Your task to perform on an android device: Search for lenovo thinkpad on target, select the first entry, add it to the cart, then select checkout. Image 0: 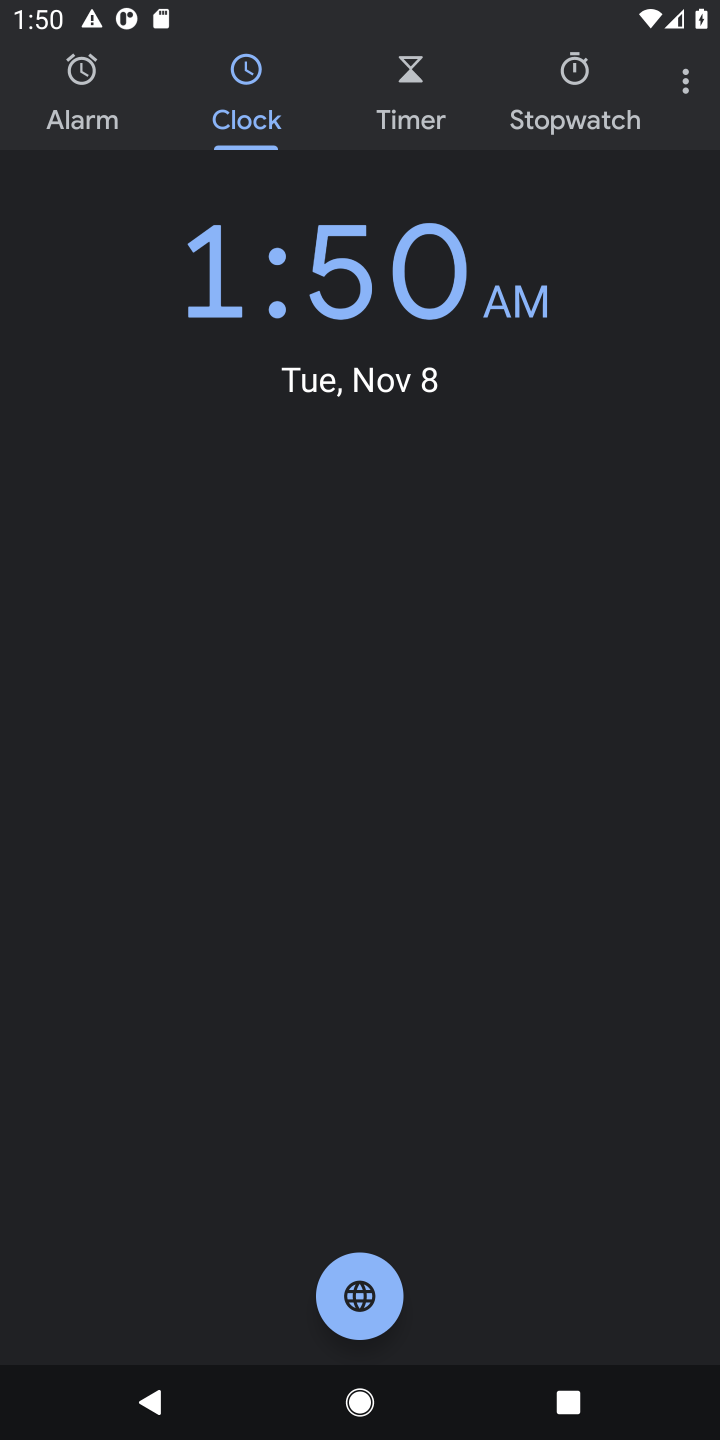
Step 0: press home button
Your task to perform on an android device: Search for lenovo thinkpad on target, select the first entry, add it to the cart, then select checkout. Image 1: 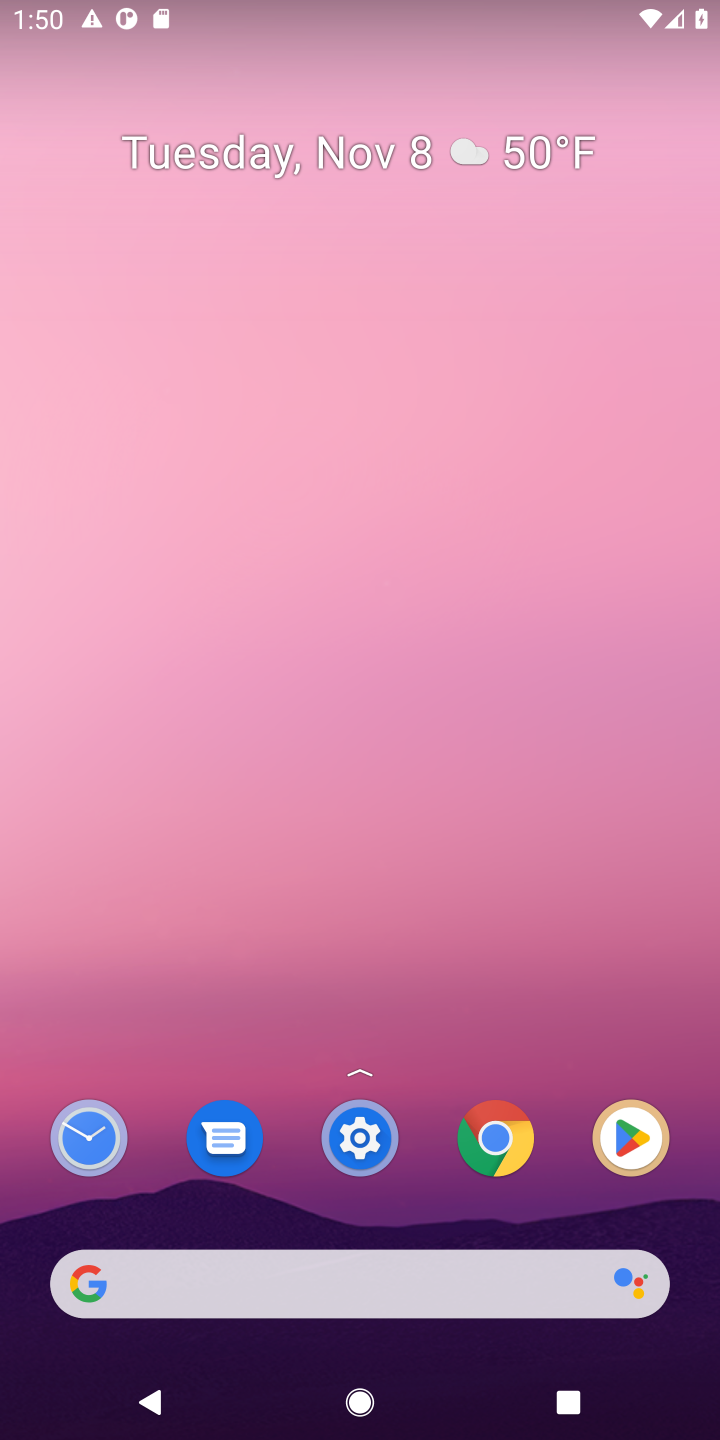
Step 1: click (298, 1297)
Your task to perform on an android device: Search for lenovo thinkpad on target, select the first entry, add it to the cart, then select checkout. Image 2: 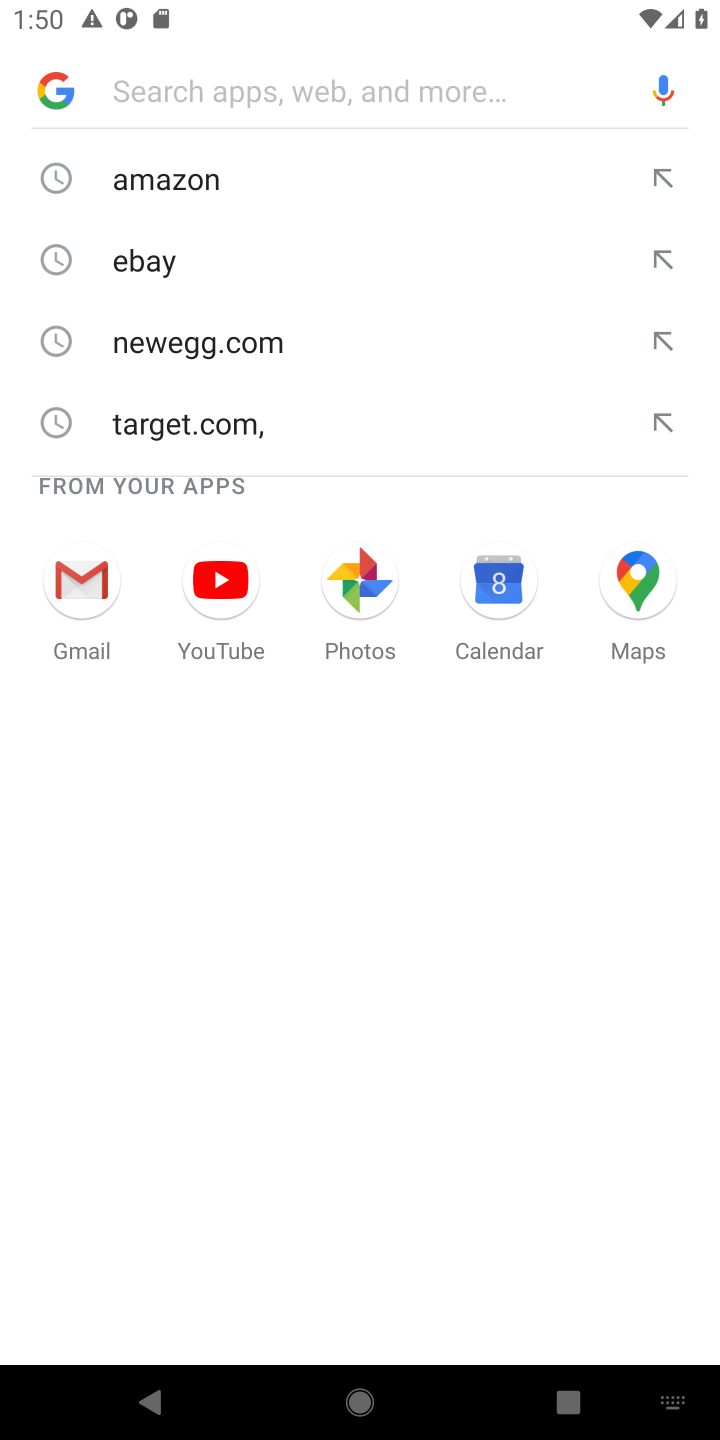
Step 2: type "targets"
Your task to perform on an android device: Search for lenovo thinkpad on target, select the first entry, add it to the cart, then select checkout. Image 3: 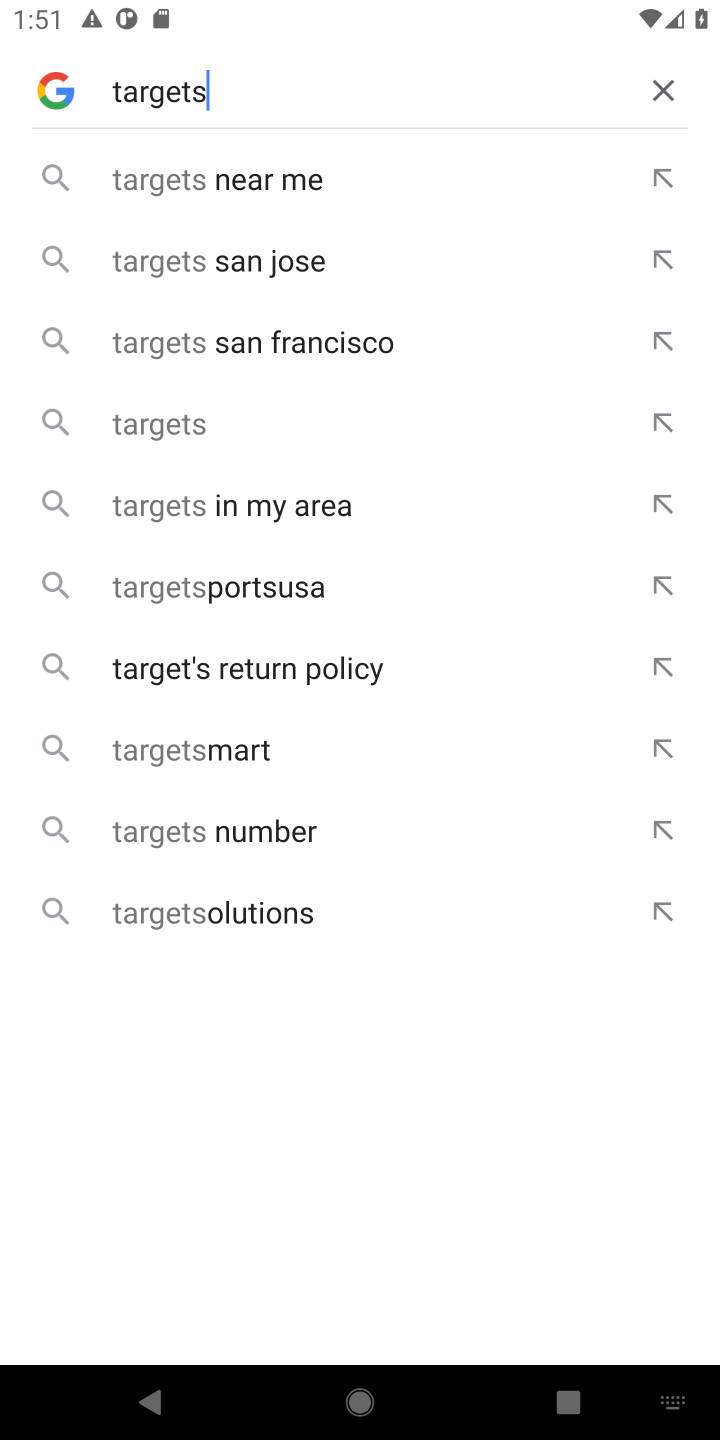
Step 3: click (164, 183)
Your task to perform on an android device: Search for lenovo thinkpad on target, select the first entry, add it to the cart, then select checkout. Image 4: 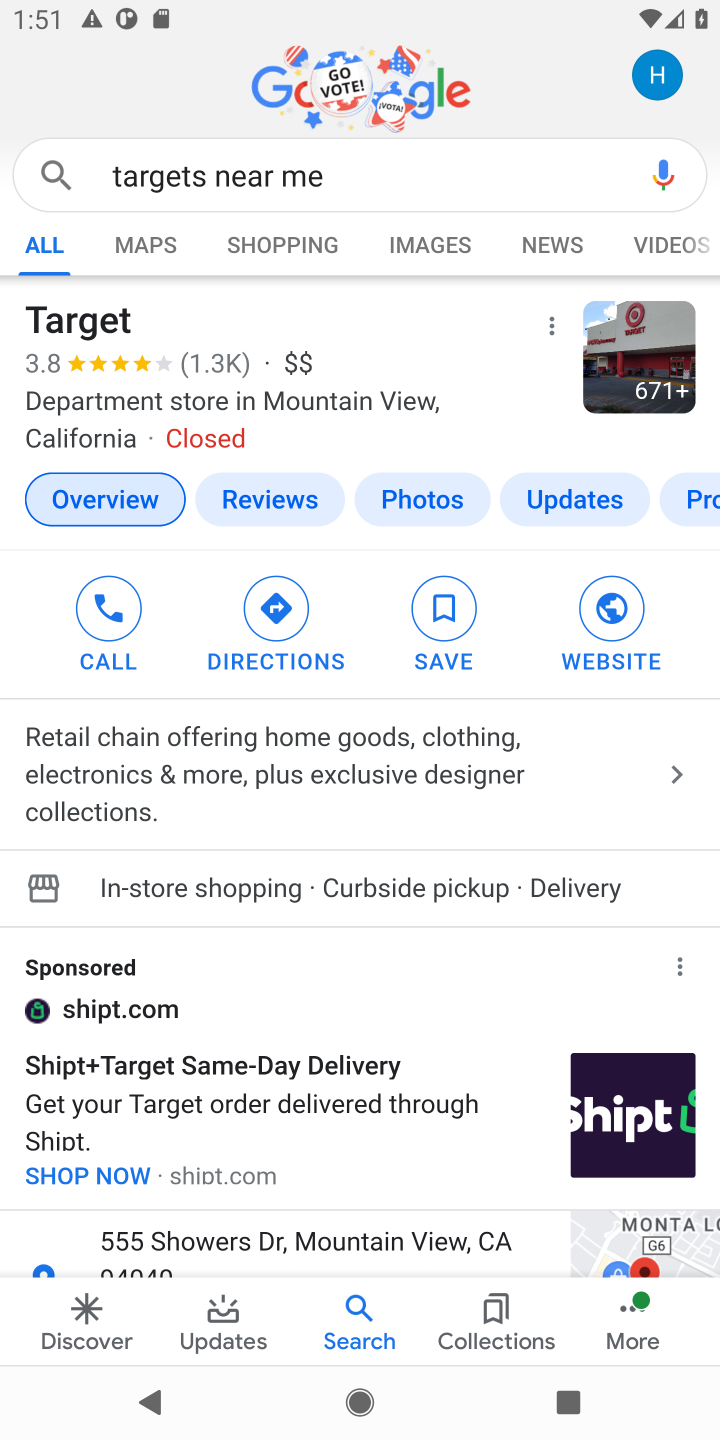
Step 4: drag from (376, 1162) to (370, 264)
Your task to perform on an android device: Search for lenovo thinkpad on target, select the first entry, add it to the cart, then select checkout. Image 5: 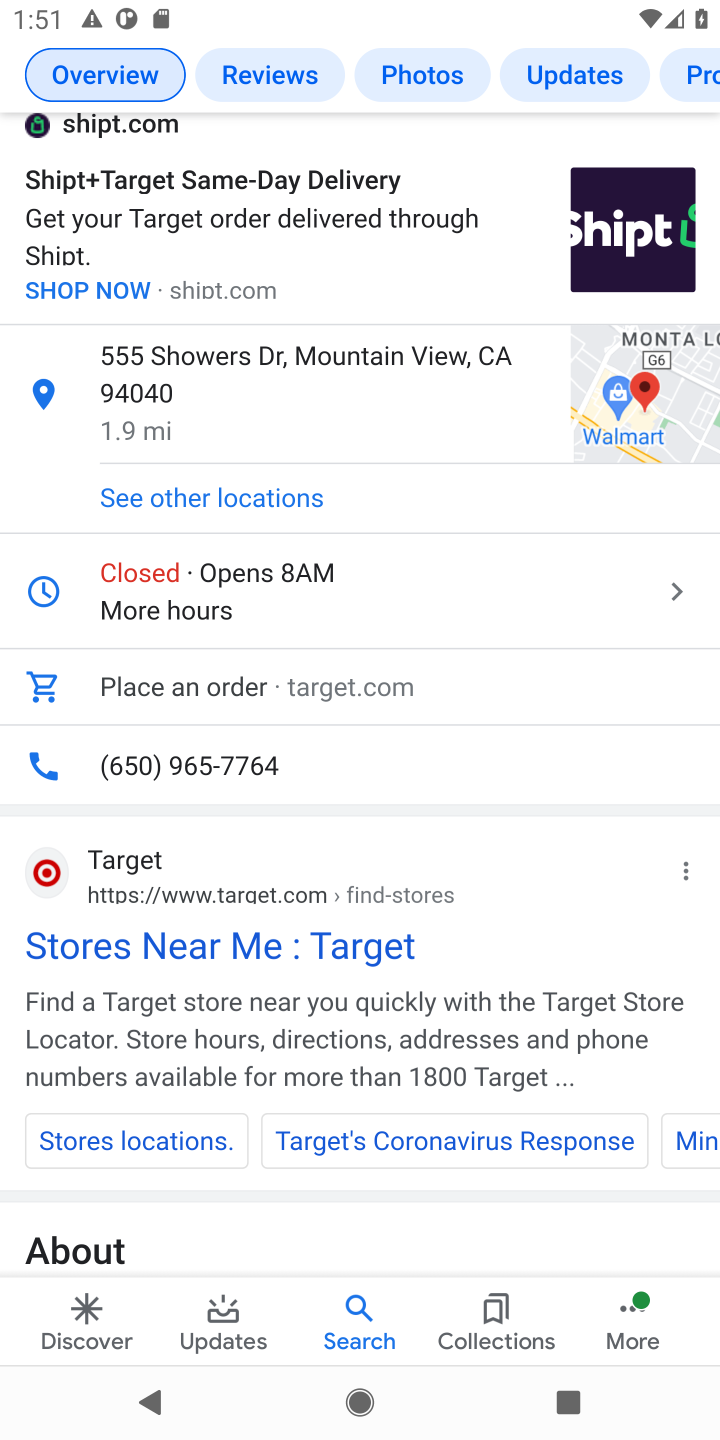
Step 5: click (302, 932)
Your task to perform on an android device: Search for lenovo thinkpad on target, select the first entry, add it to the cart, then select checkout. Image 6: 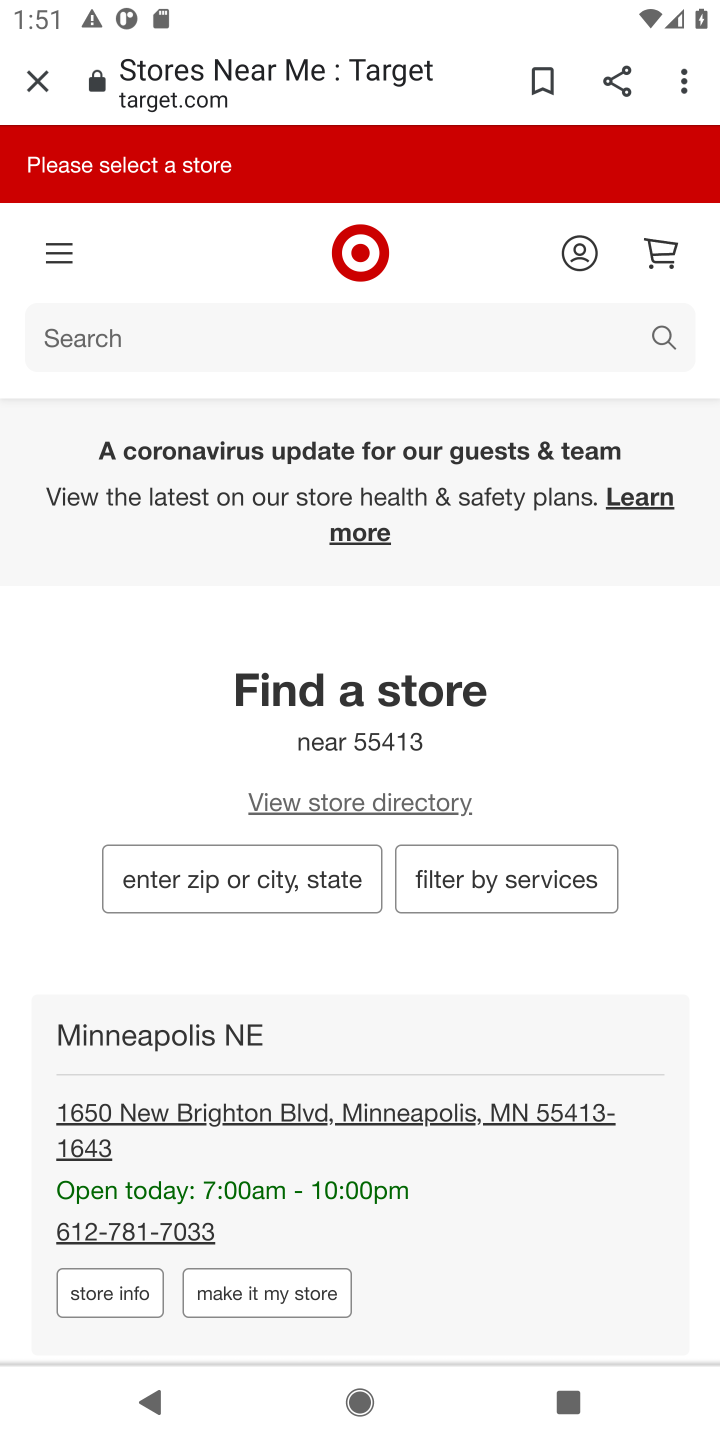
Step 6: click (332, 334)
Your task to perform on an android device: Search for lenovo thinkpad on target, select the first entry, add it to the cart, then select checkout. Image 7: 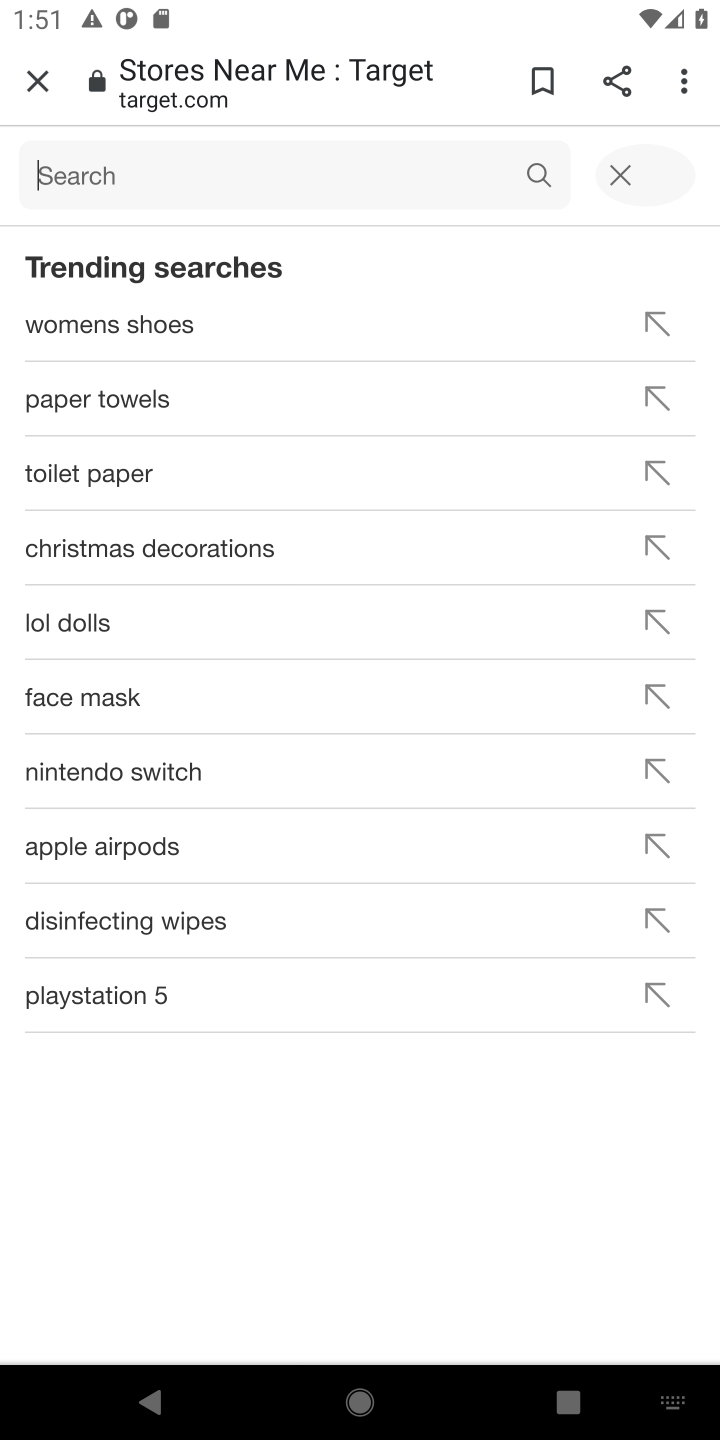
Step 7: type "lenovo traget"
Your task to perform on an android device: Search for lenovo thinkpad on target, select the first entry, add it to the cart, then select checkout. Image 8: 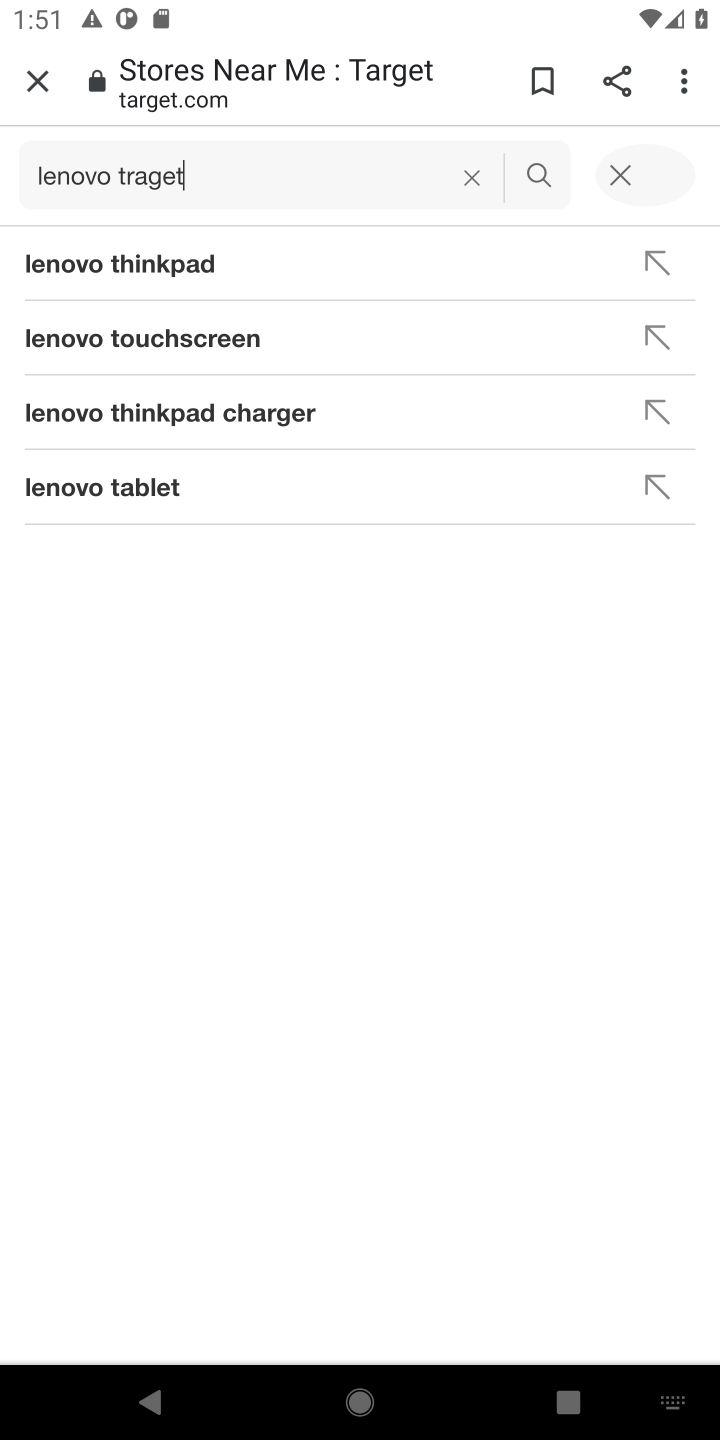
Step 8: click (289, 275)
Your task to perform on an android device: Search for lenovo thinkpad on target, select the first entry, add it to the cart, then select checkout. Image 9: 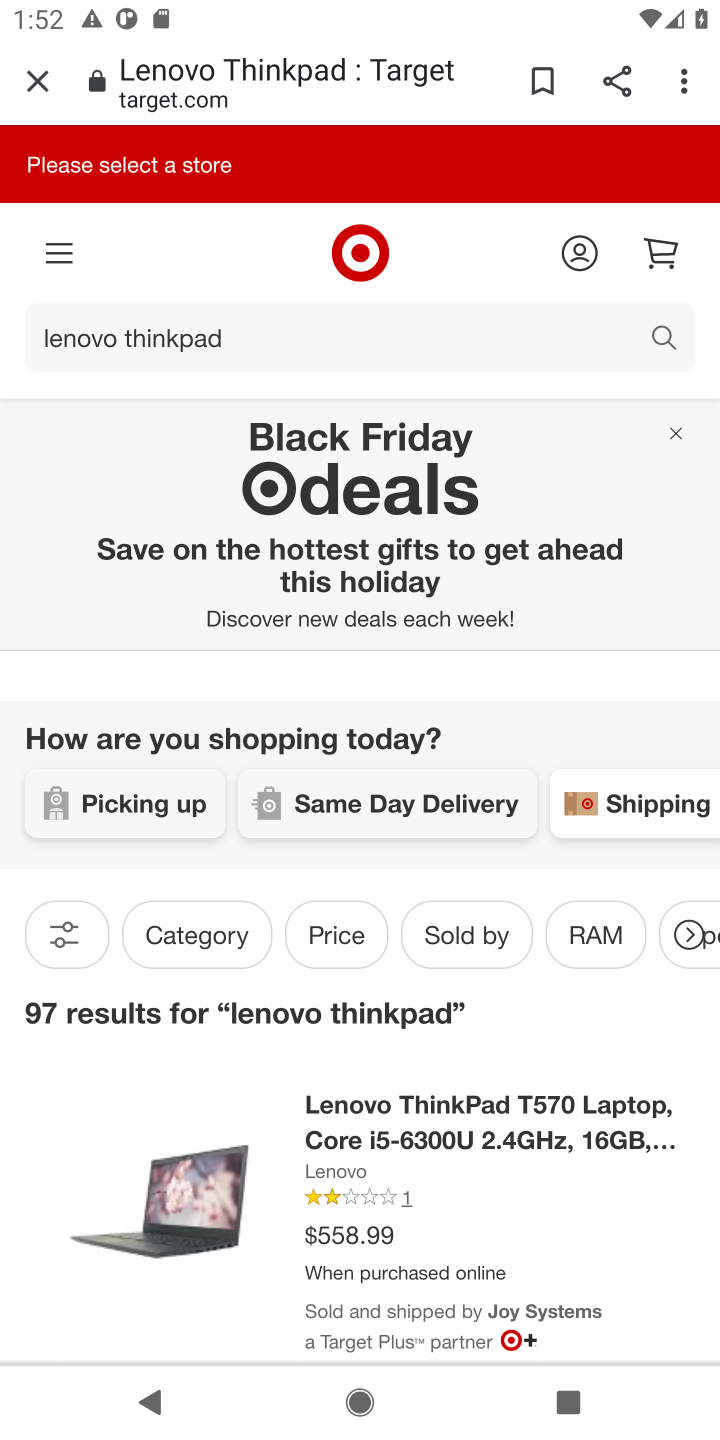
Step 9: click (417, 1104)
Your task to perform on an android device: Search for lenovo thinkpad on target, select the first entry, add it to the cart, then select checkout. Image 10: 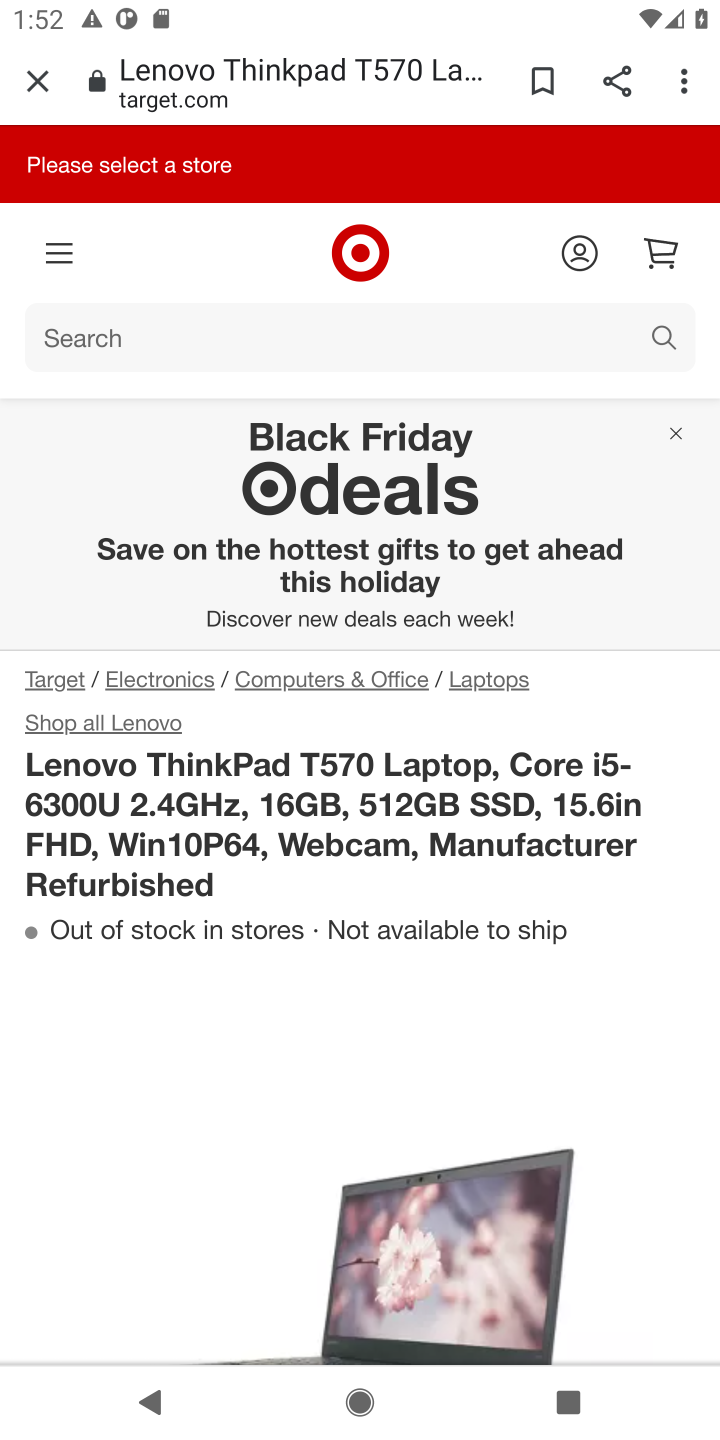
Step 10: drag from (510, 1120) to (491, 293)
Your task to perform on an android device: Search for lenovo thinkpad on target, select the first entry, add it to the cart, then select checkout. Image 11: 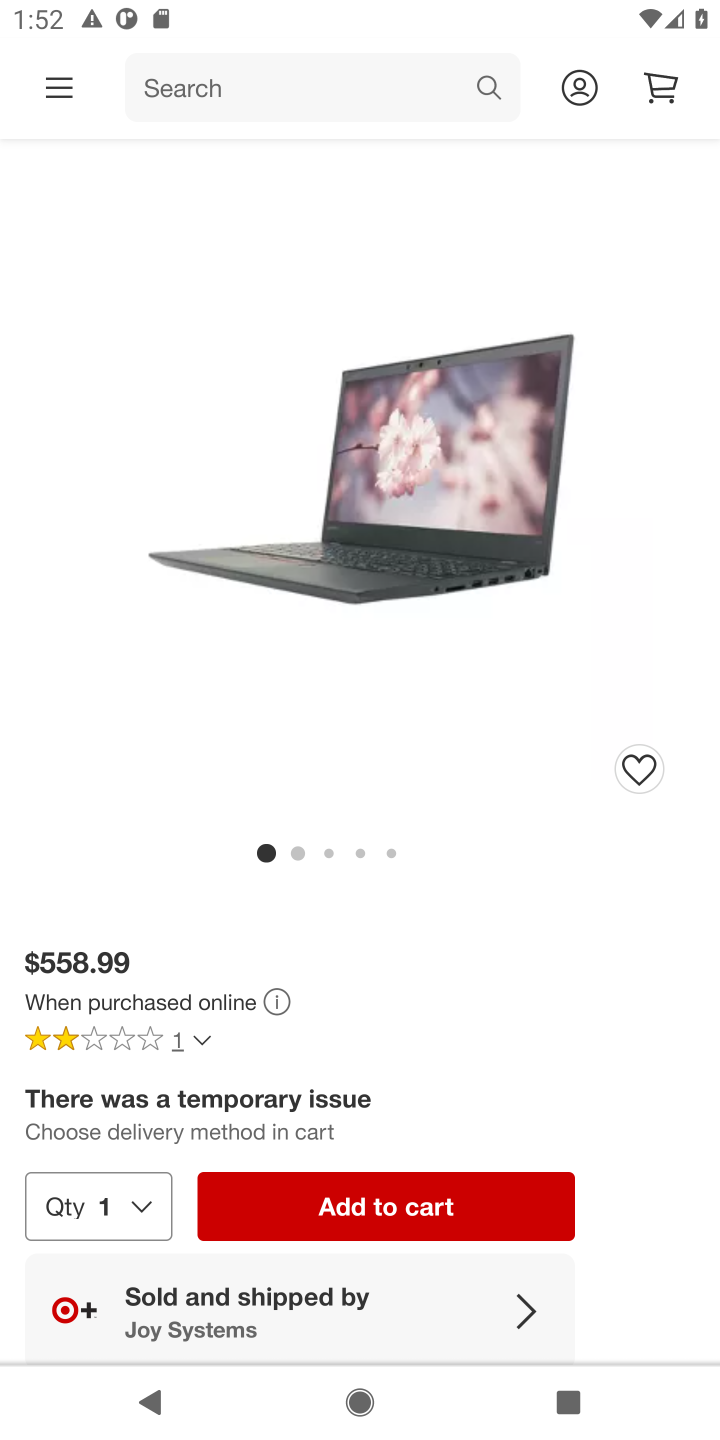
Step 11: click (380, 1199)
Your task to perform on an android device: Search for lenovo thinkpad on target, select the first entry, add it to the cart, then select checkout. Image 12: 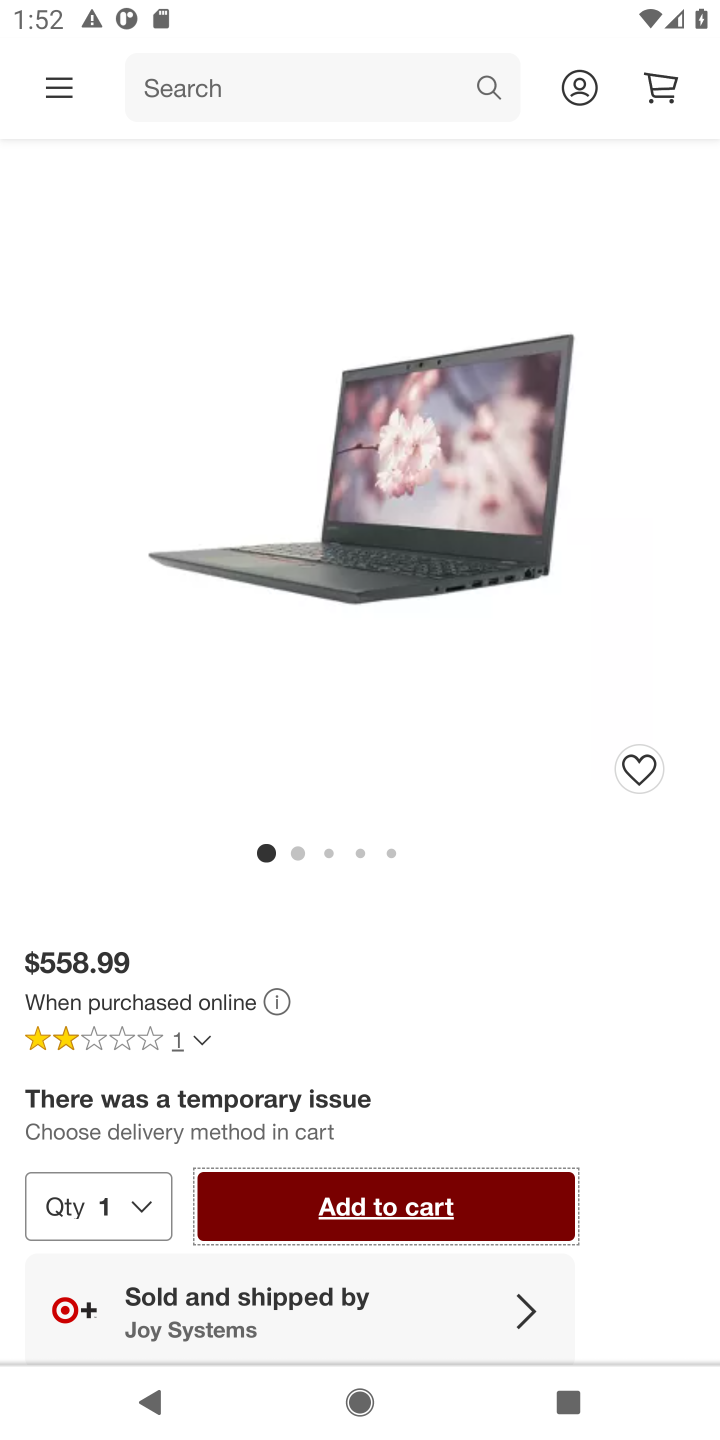
Step 12: task complete